Your task to perform on an android device: Search for pizza restaurants on Maps Image 0: 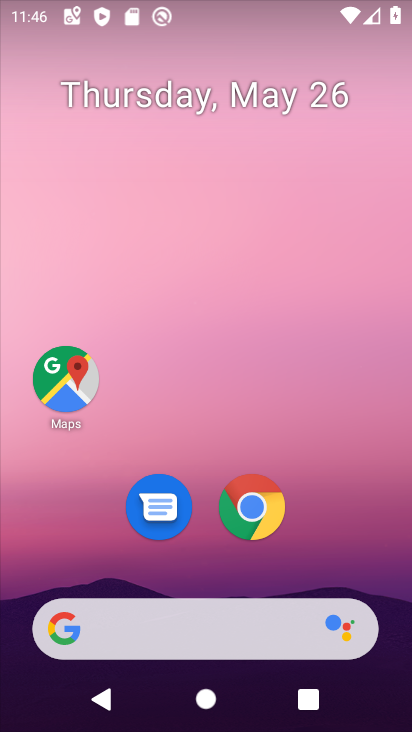
Step 0: click (254, 504)
Your task to perform on an android device: Search for pizza restaurants on Maps Image 1: 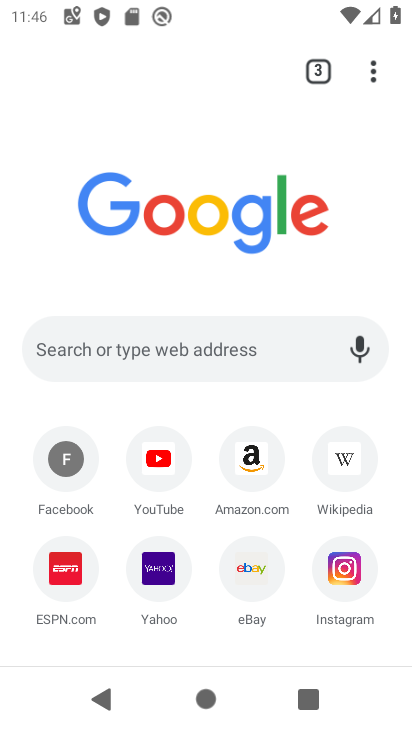
Step 1: press home button
Your task to perform on an android device: Search for pizza restaurants on Maps Image 2: 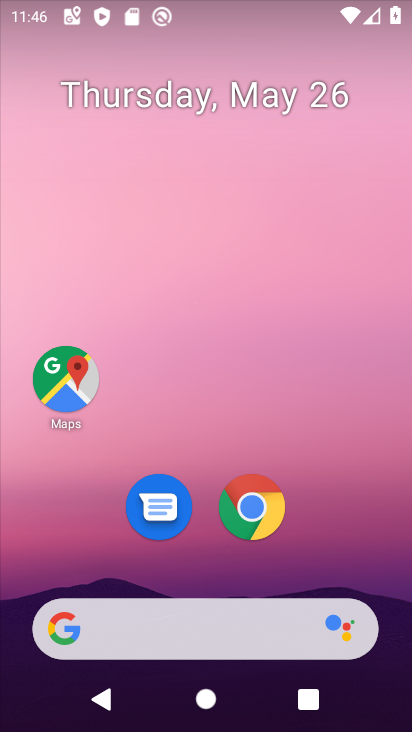
Step 2: click (58, 393)
Your task to perform on an android device: Search for pizza restaurants on Maps Image 3: 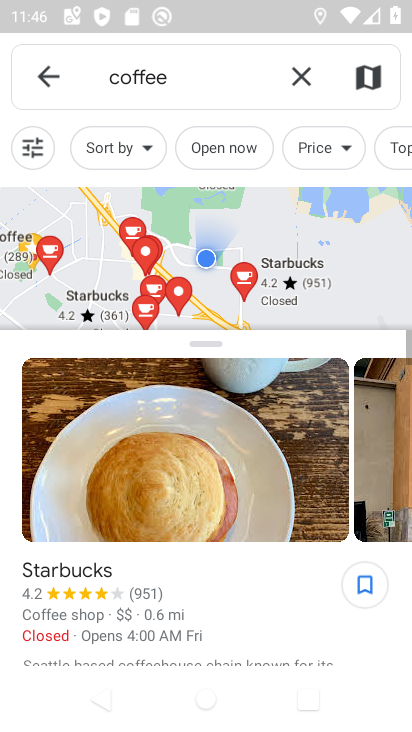
Step 3: click (239, 70)
Your task to perform on an android device: Search for pizza restaurants on Maps Image 4: 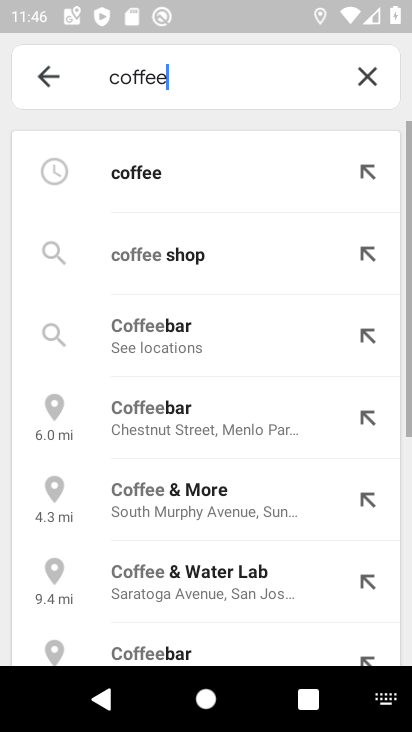
Step 4: click (348, 72)
Your task to perform on an android device: Search for pizza restaurants on Maps Image 5: 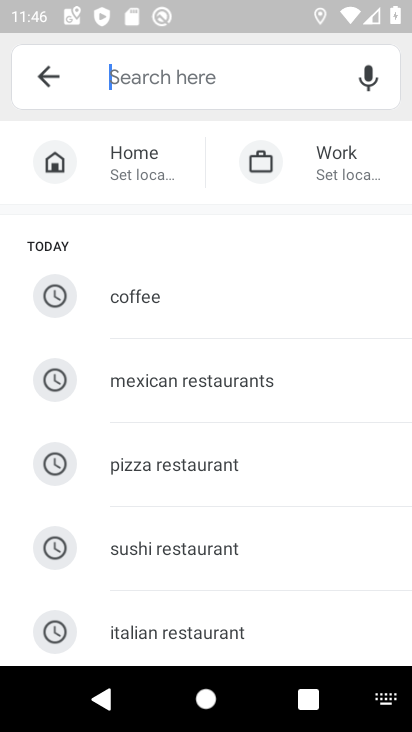
Step 5: type "pizza restaurants"
Your task to perform on an android device: Search for pizza restaurants on Maps Image 6: 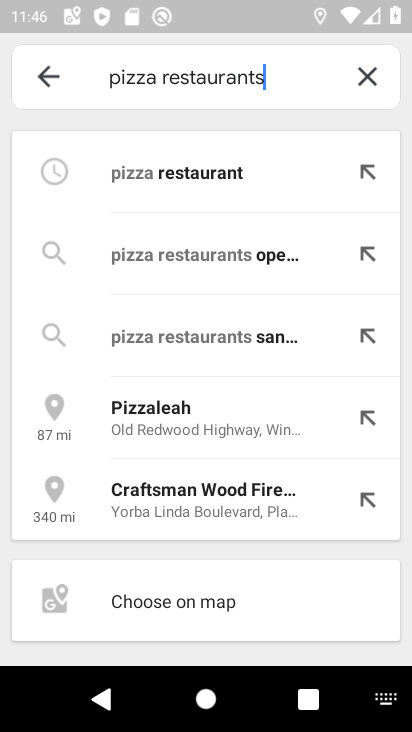
Step 6: press enter
Your task to perform on an android device: Search for pizza restaurants on Maps Image 7: 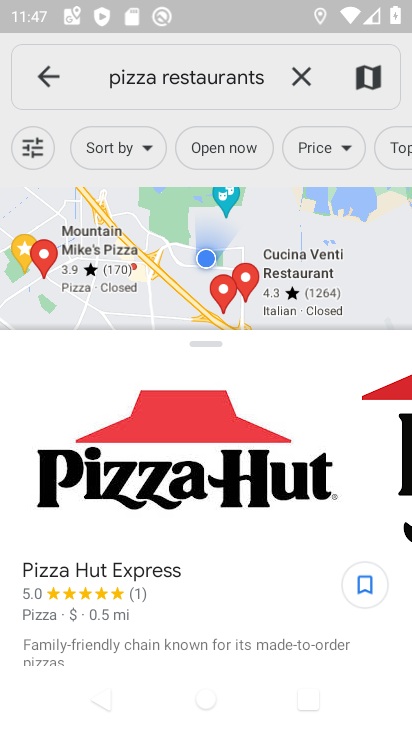
Step 7: task complete